Your task to perform on an android device: open app "Yahoo Mail" (install if not already installed) and go to login screen Image 0: 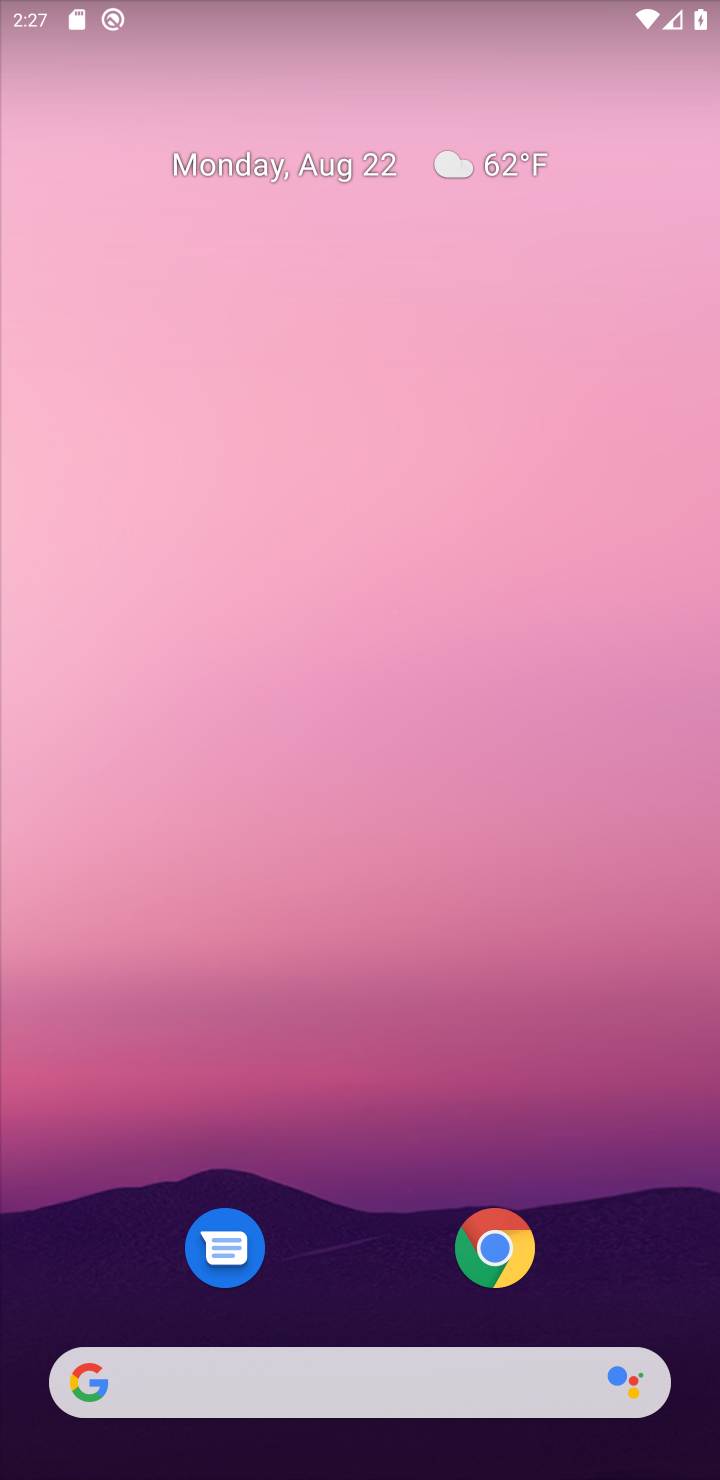
Step 0: drag from (318, 1034) to (344, 275)
Your task to perform on an android device: open app "Yahoo Mail" (install if not already installed) and go to login screen Image 1: 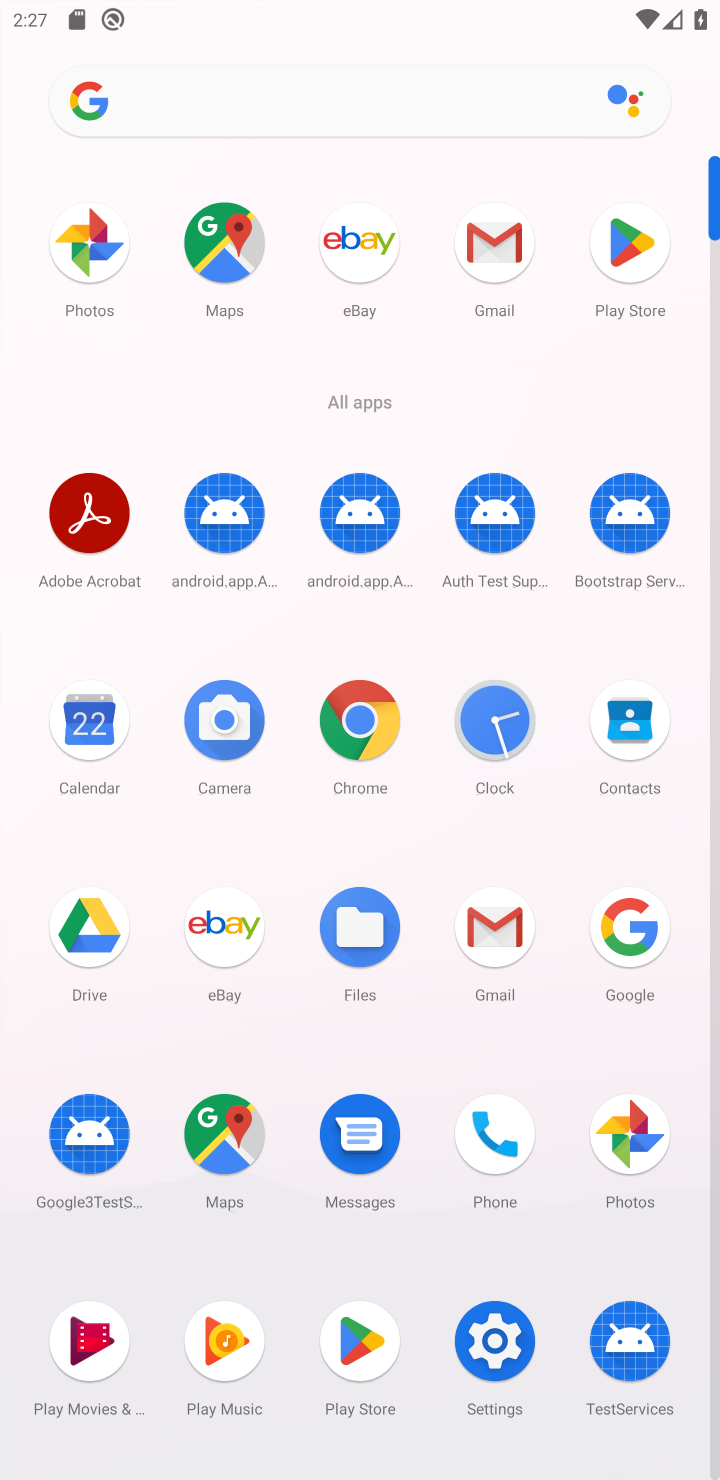
Step 1: click (637, 244)
Your task to perform on an android device: open app "Yahoo Mail" (install if not already installed) and go to login screen Image 2: 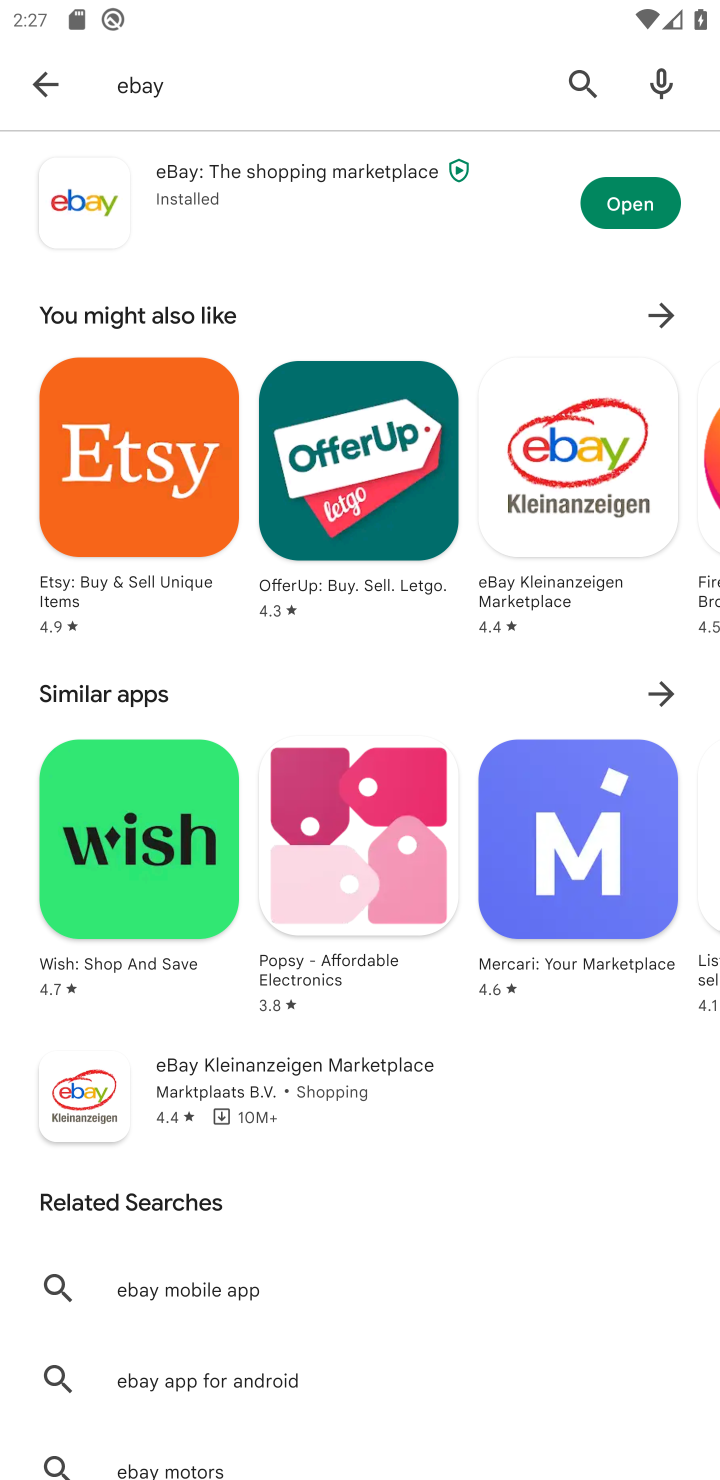
Step 2: click (271, 85)
Your task to perform on an android device: open app "Yahoo Mail" (install if not already installed) and go to login screen Image 3: 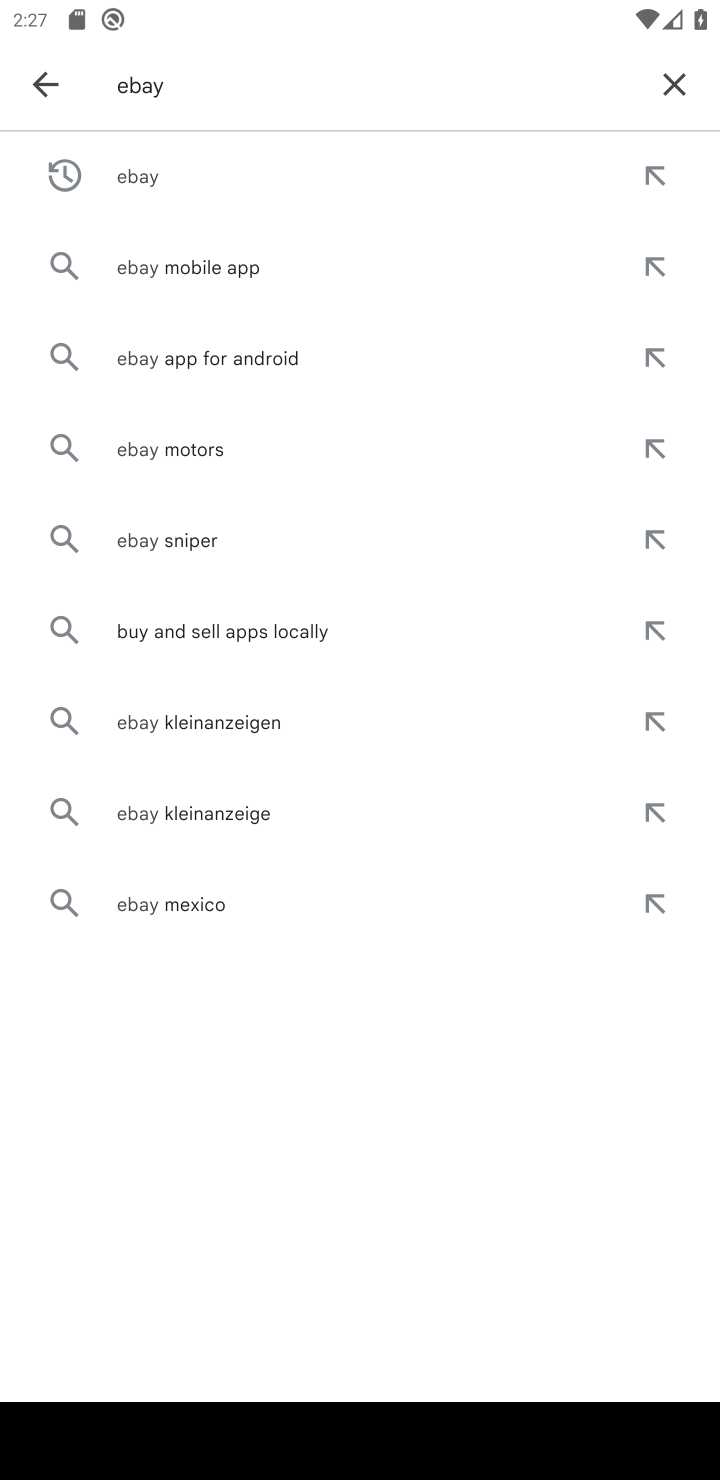
Step 3: click (671, 76)
Your task to perform on an android device: open app "Yahoo Mail" (install if not already installed) and go to login screen Image 4: 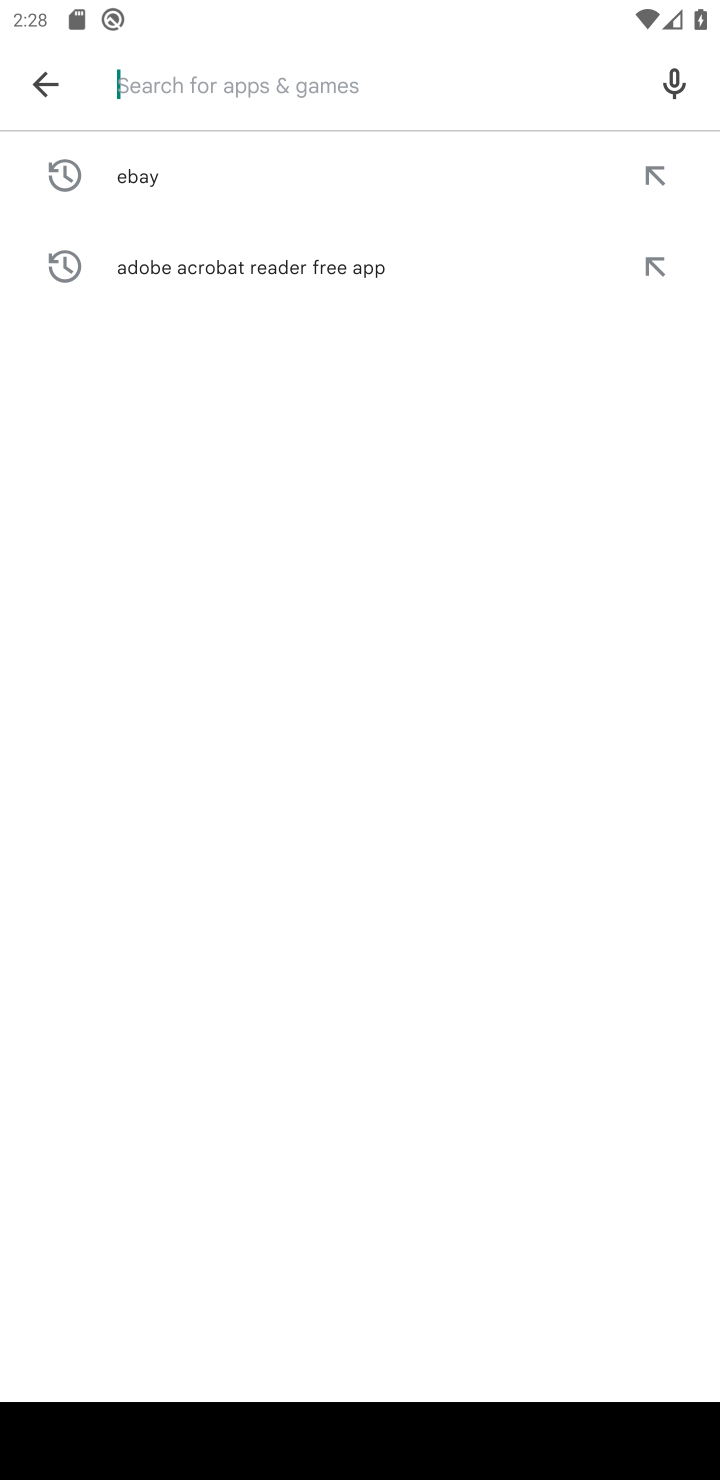
Step 4: type "Yahoo mail"
Your task to perform on an android device: open app "Yahoo Mail" (install if not already installed) and go to login screen Image 5: 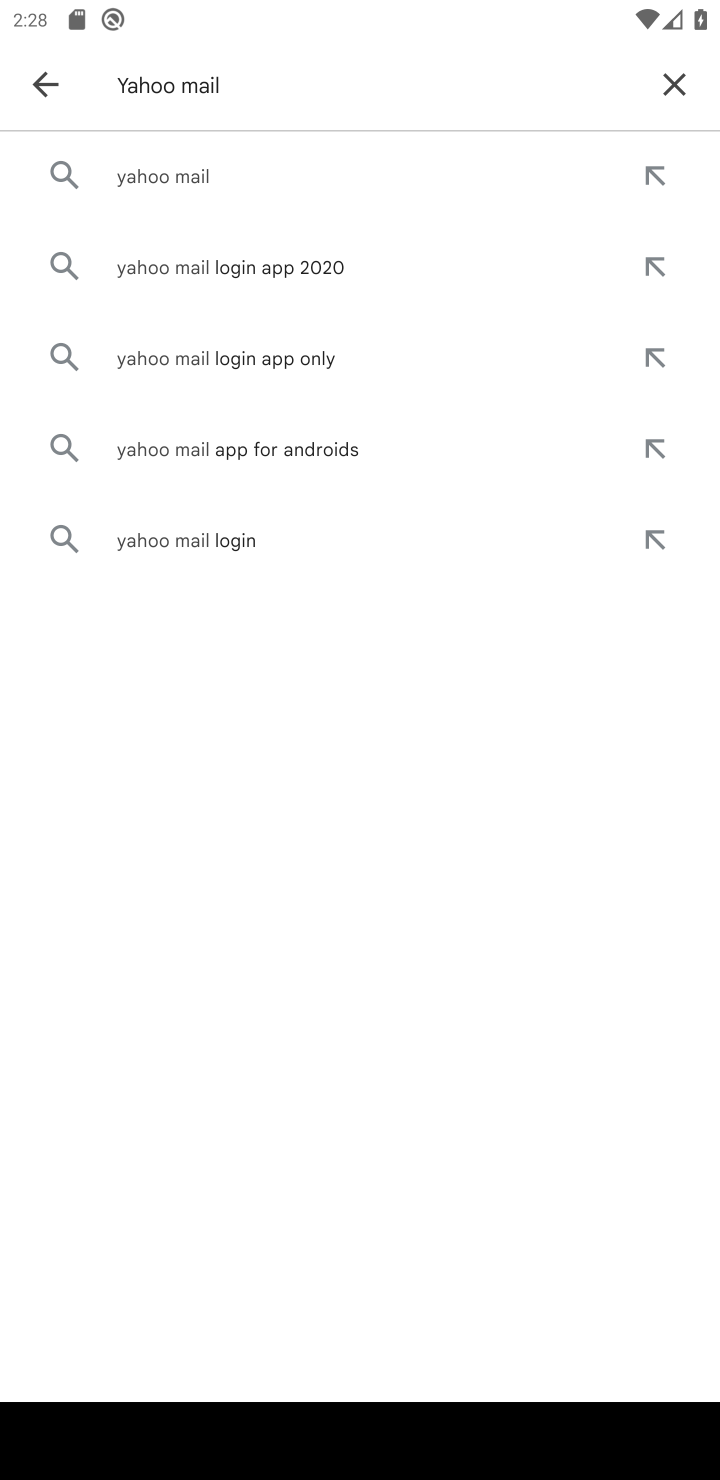
Step 5: click (230, 181)
Your task to perform on an android device: open app "Yahoo Mail" (install if not already installed) and go to login screen Image 6: 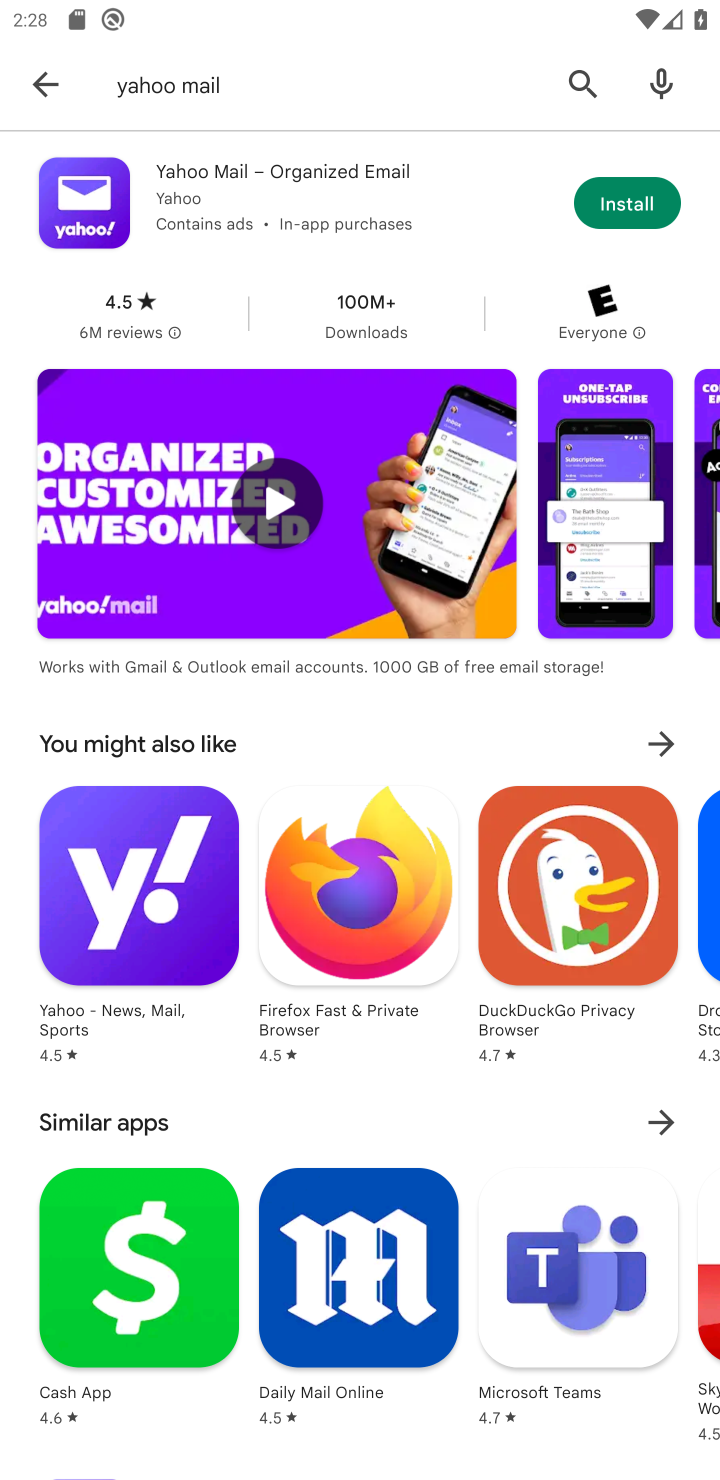
Step 6: click (664, 205)
Your task to perform on an android device: open app "Yahoo Mail" (install if not already installed) and go to login screen Image 7: 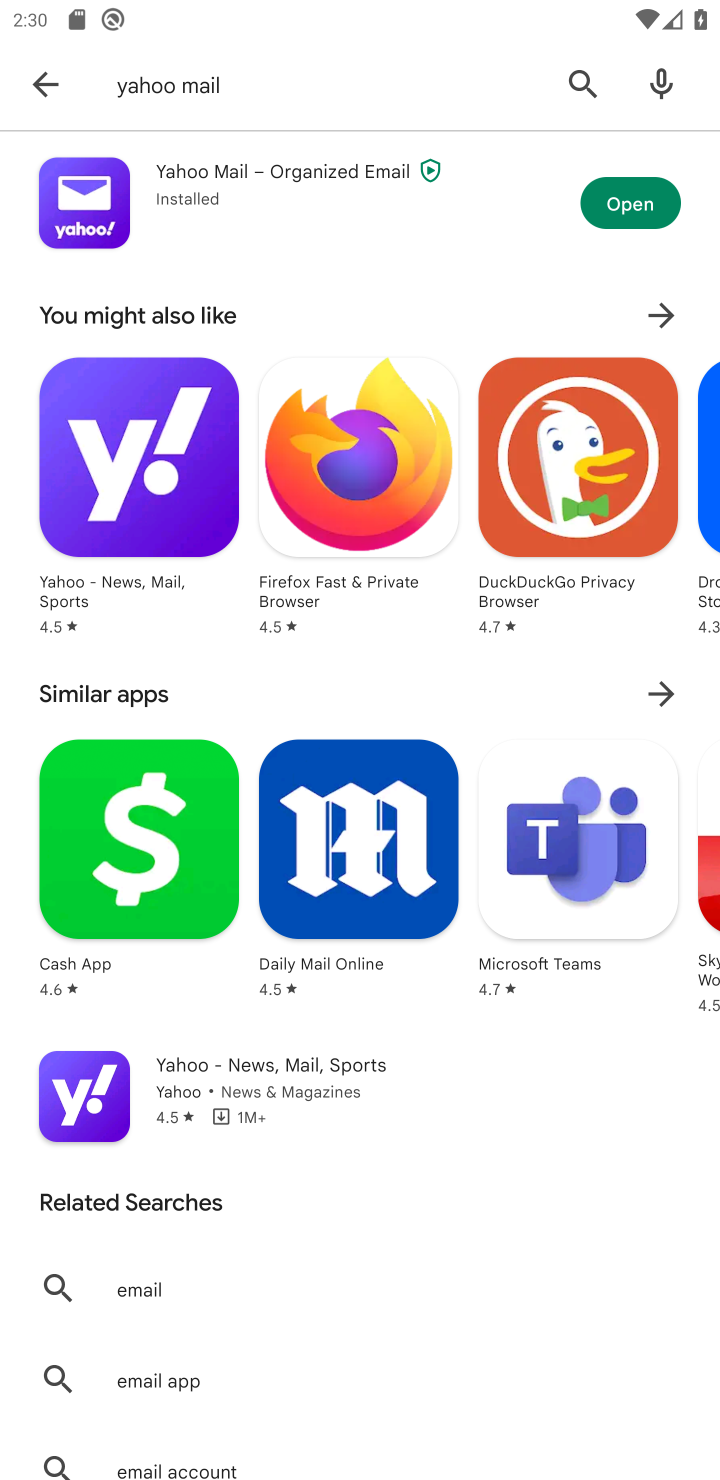
Step 7: click (621, 201)
Your task to perform on an android device: open app "Yahoo Mail" (install if not already installed) and go to login screen Image 8: 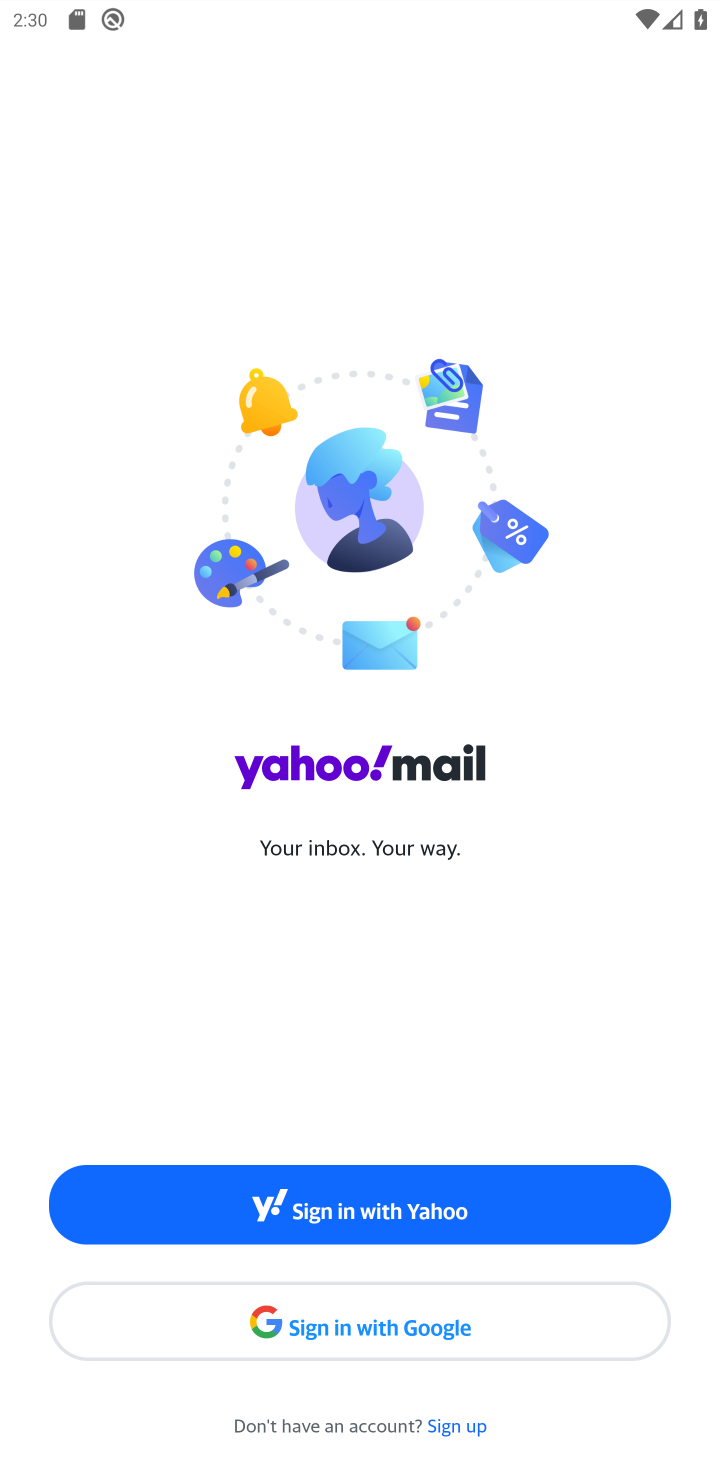
Step 8: click (452, 1424)
Your task to perform on an android device: open app "Yahoo Mail" (install if not already installed) and go to login screen Image 9: 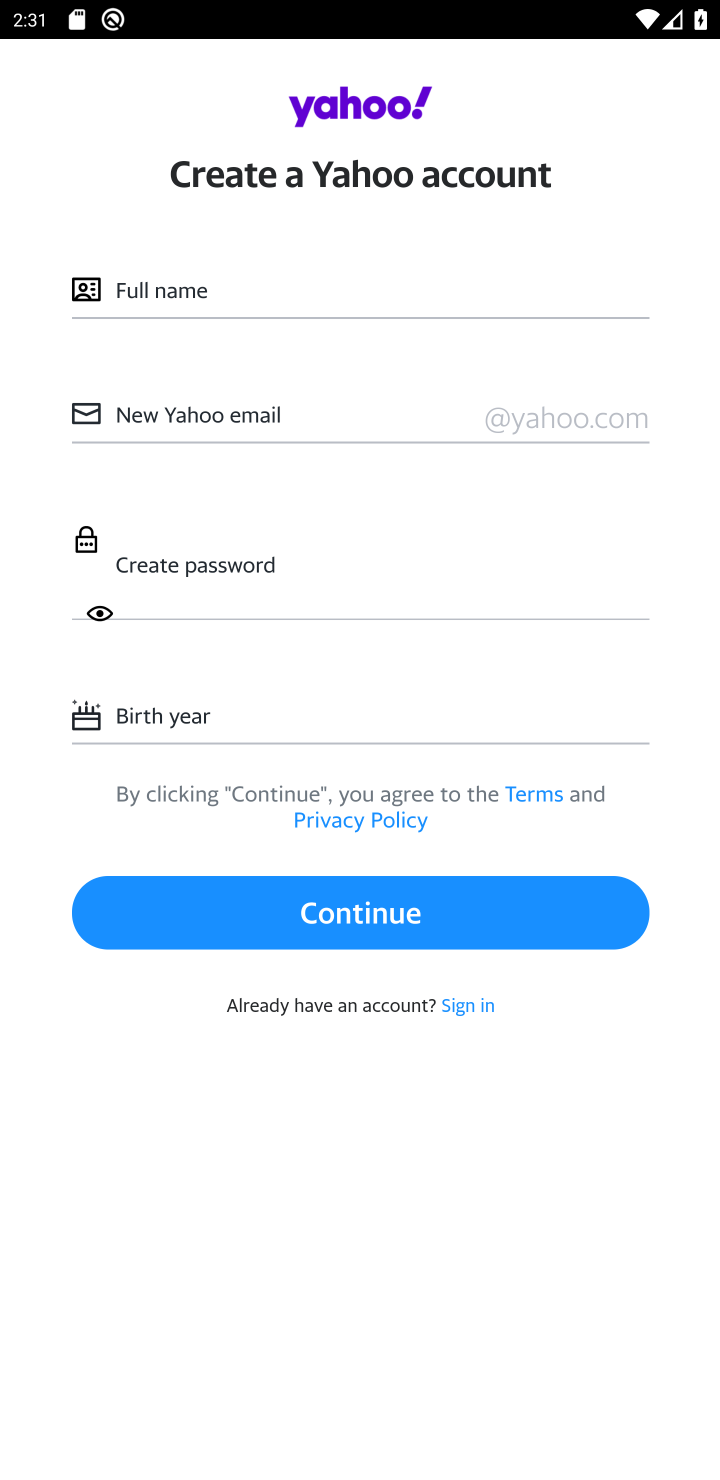
Step 9: task complete